Your task to perform on an android device: Open Chrome and go to settings Image 0: 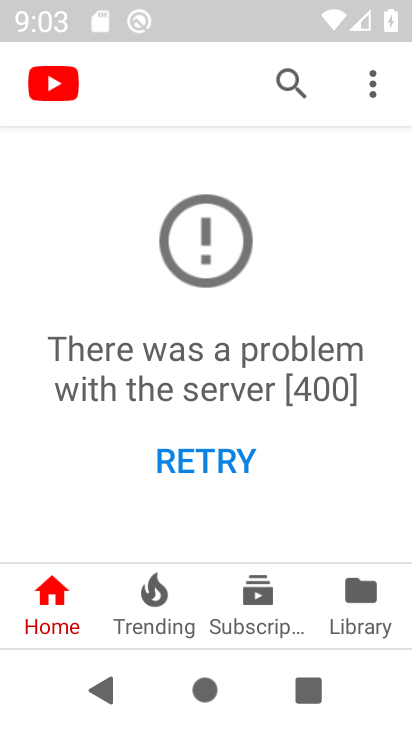
Step 0: press back button
Your task to perform on an android device: Open Chrome and go to settings Image 1: 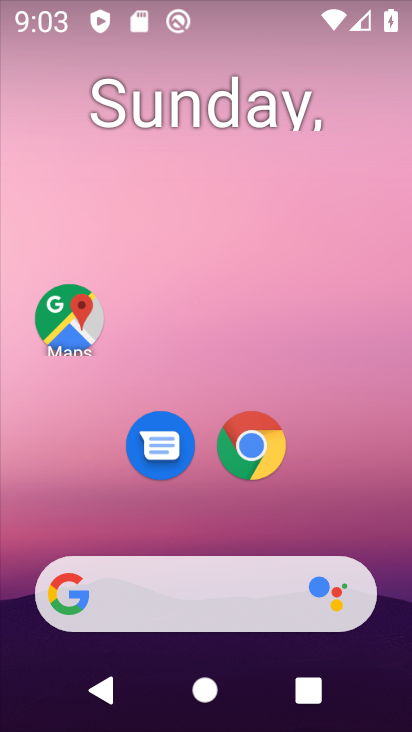
Step 1: click (251, 459)
Your task to perform on an android device: Open Chrome and go to settings Image 2: 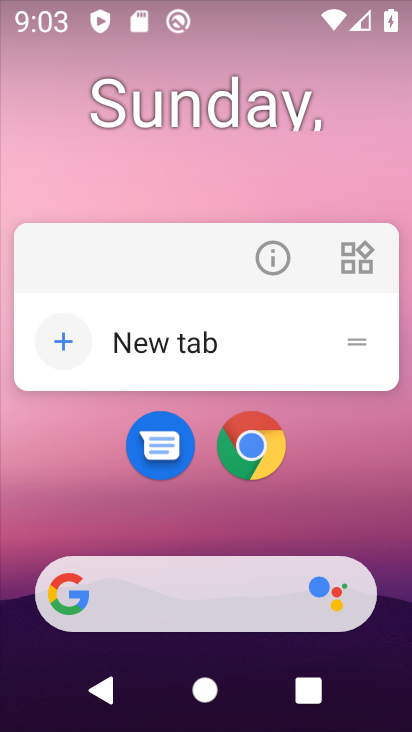
Step 2: click (251, 467)
Your task to perform on an android device: Open Chrome and go to settings Image 3: 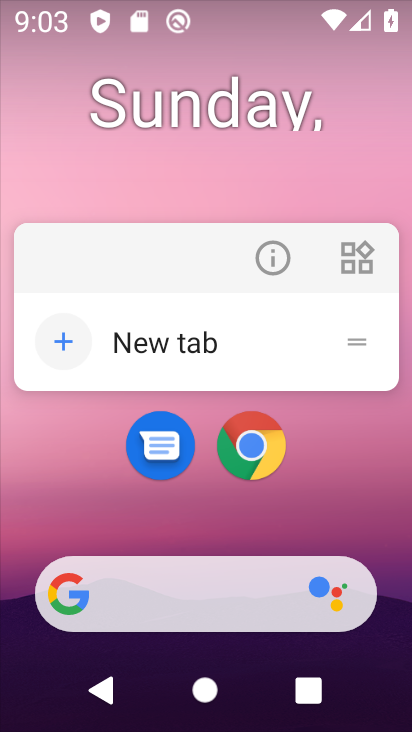
Step 3: click (251, 467)
Your task to perform on an android device: Open Chrome and go to settings Image 4: 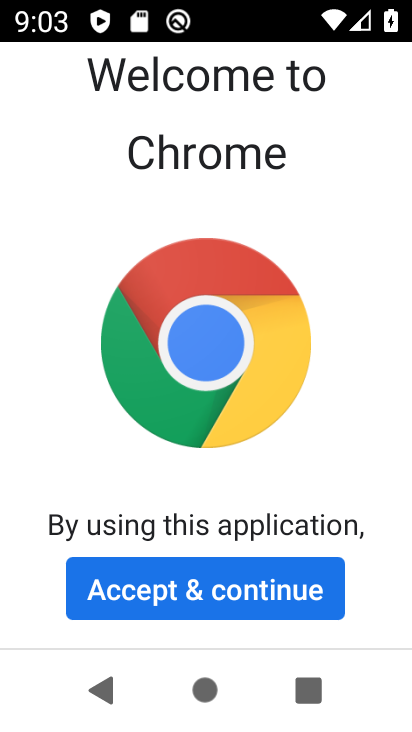
Step 4: click (218, 590)
Your task to perform on an android device: Open Chrome and go to settings Image 5: 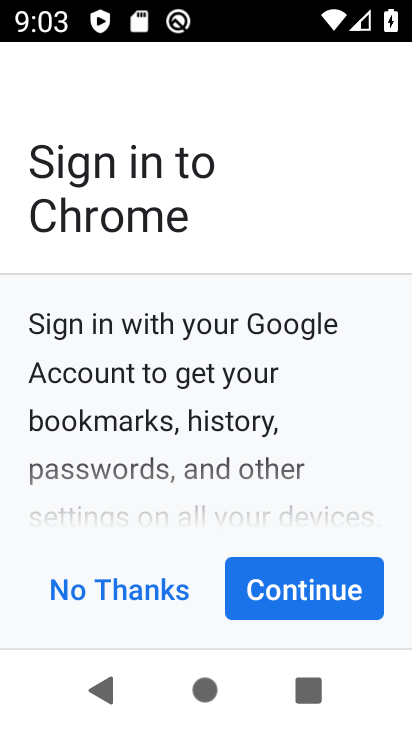
Step 5: click (280, 583)
Your task to perform on an android device: Open Chrome and go to settings Image 6: 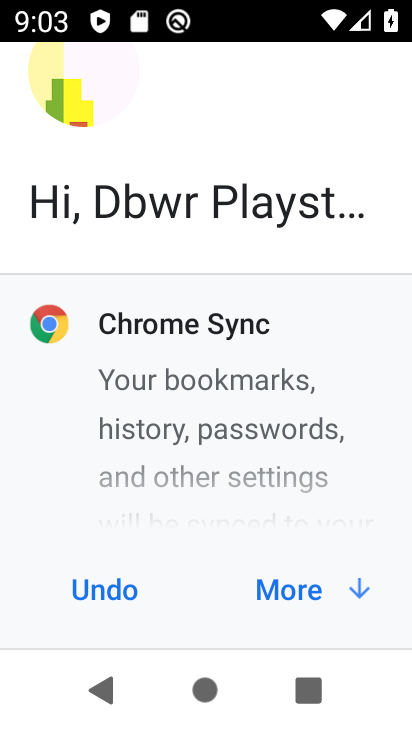
Step 6: click (275, 593)
Your task to perform on an android device: Open Chrome and go to settings Image 7: 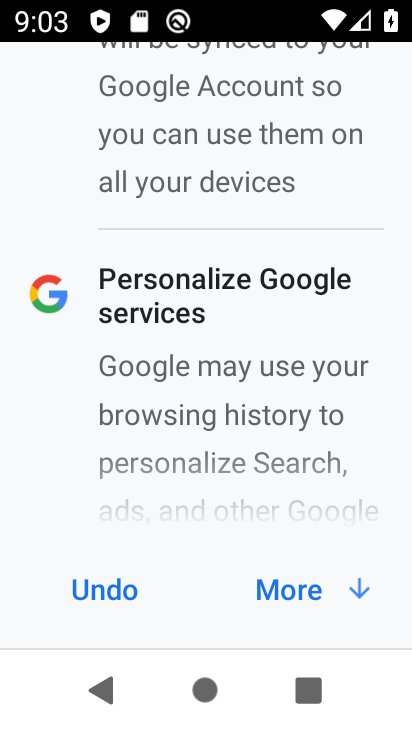
Step 7: click (307, 586)
Your task to perform on an android device: Open Chrome and go to settings Image 8: 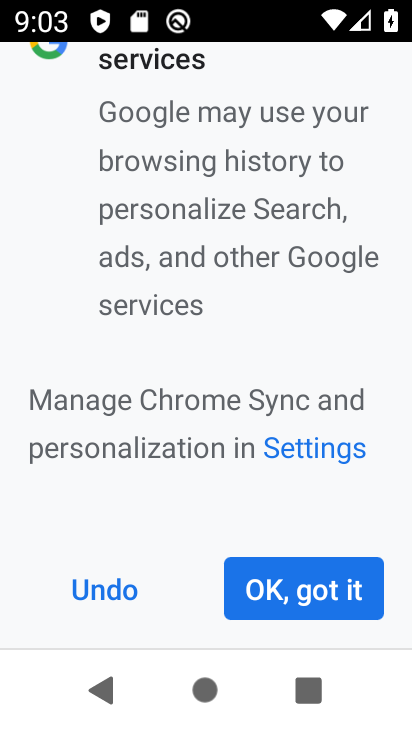
Step 8: click (307, 586)
Your task to perform on an android device: Open Chrome and go to settings Image 9: 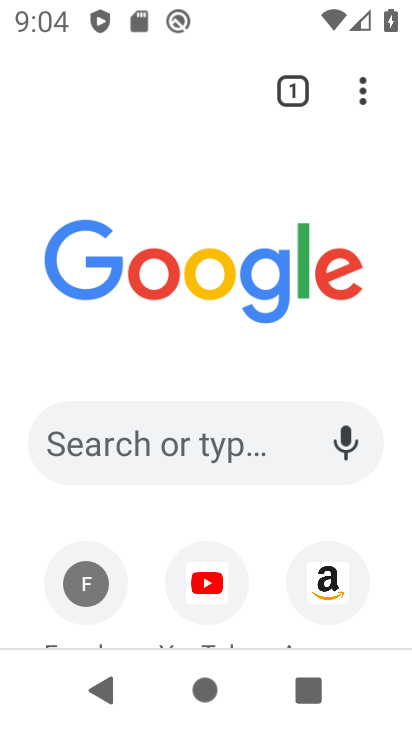
Step 9: task complete